Your task to perform on an android device: choose inbox layout in the gmail app Image 0: 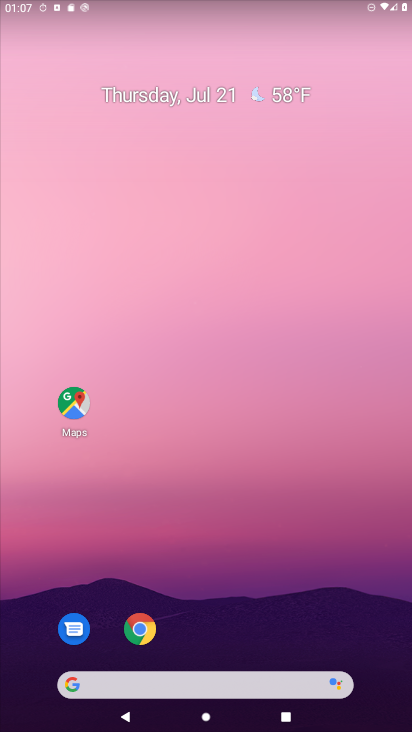
Step 0: drag from (212, 611) to (213, 167)
Your task to perform on an android device: choose inbox layout in the gmail app Image 1: 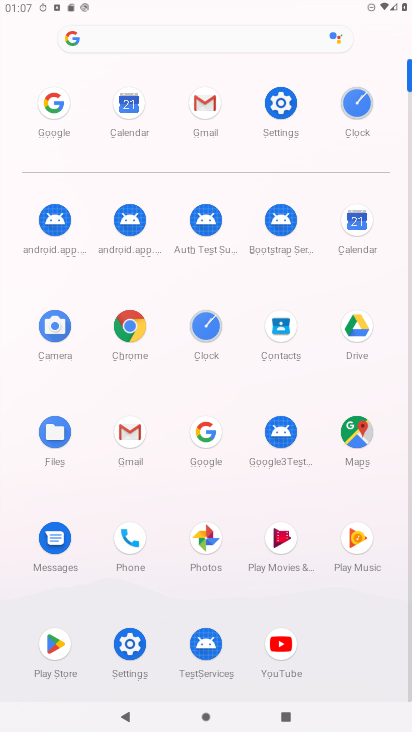
Step 1: click (192, 90)
Your task to perform on an android device: choose inbox layout in the gmail app Image 2: 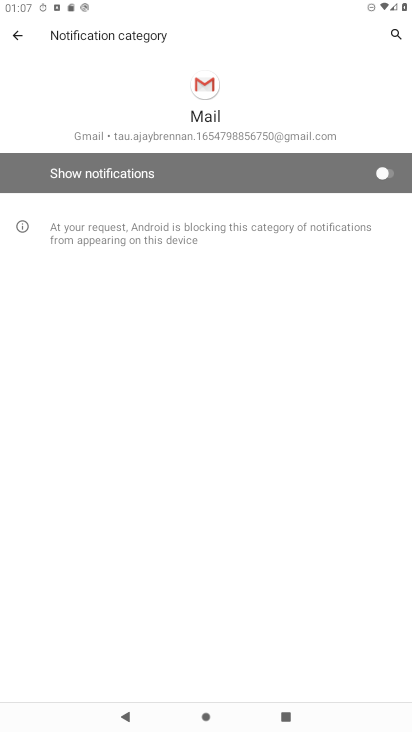
Step 2: click (20, 38)
Your task to perform on an android device: choose inbox layout in the gmail app Image 3: 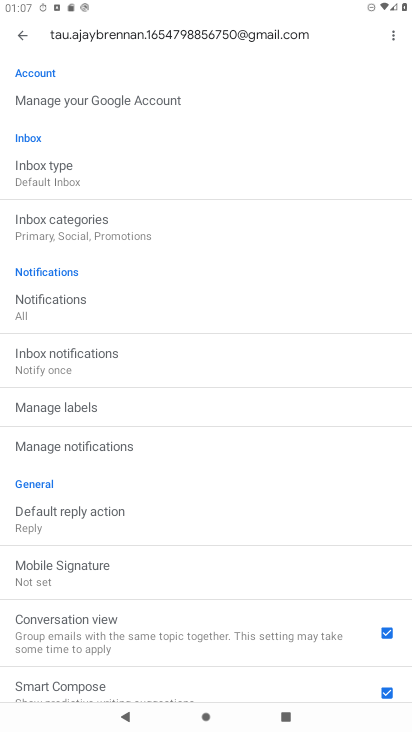
Step 3: click (50, 187)
Your task to perform on an android device: choose inbox layout in the gmail app Image 4: 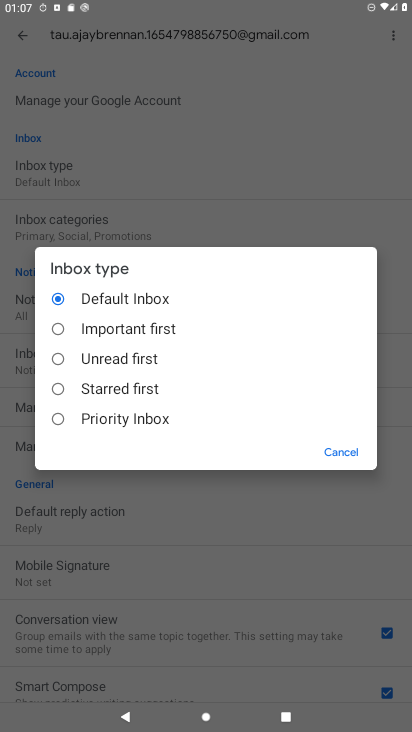
Step 4: click (108, 424)
Your task to perform on an android device: choose inbox layout in the gmail app Image 5: 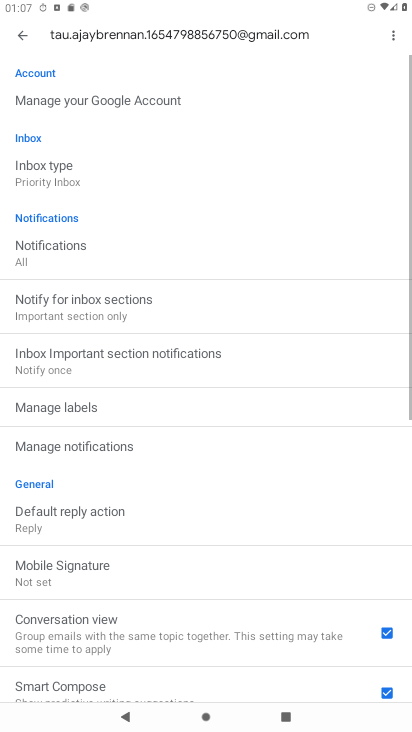
Step 5: task complete